Your task to perform on an android device: open device folders in google photos Image 0: 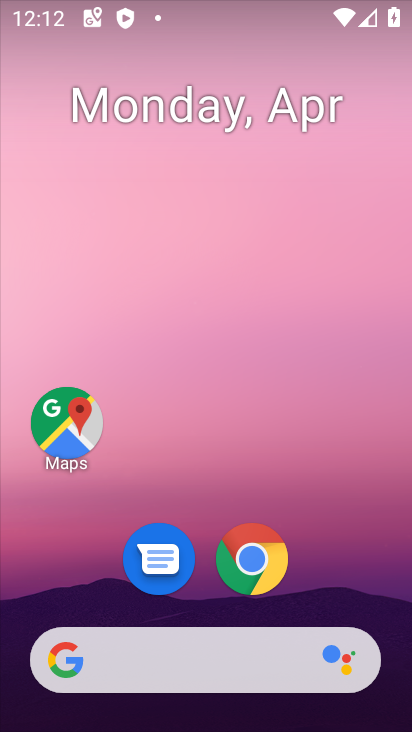
Step 0: drag from (220, 492) to (260, 57)
Your task to perform on an android device: open device folders in google photos Image 1: 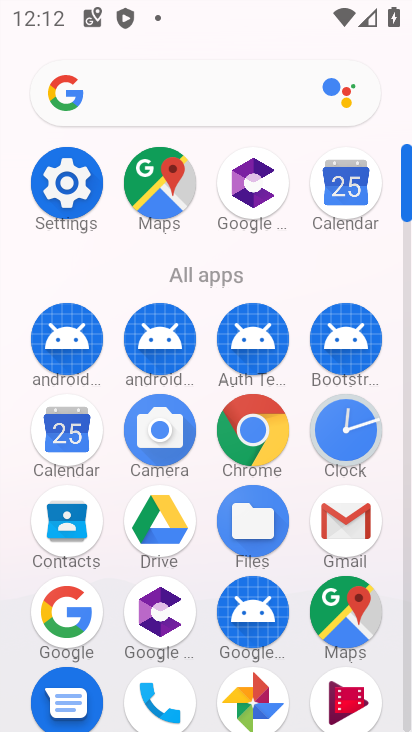
Step 1: click (251, 689)
Your task to perform on an android device: open device folders in google photos Image 2: 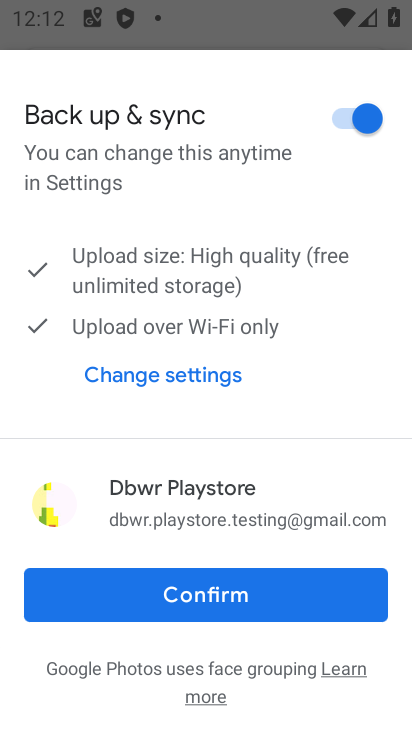
Step 2: click (243, 596)
Your task to perform on an android device: open device folders in google photos Image 3: 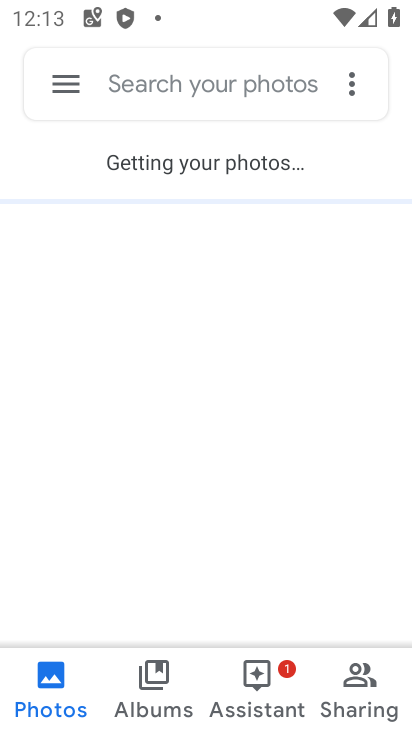
Step 3: click (350, 88)
Your task to perform on an android device: open device folders in google photos Image 4: 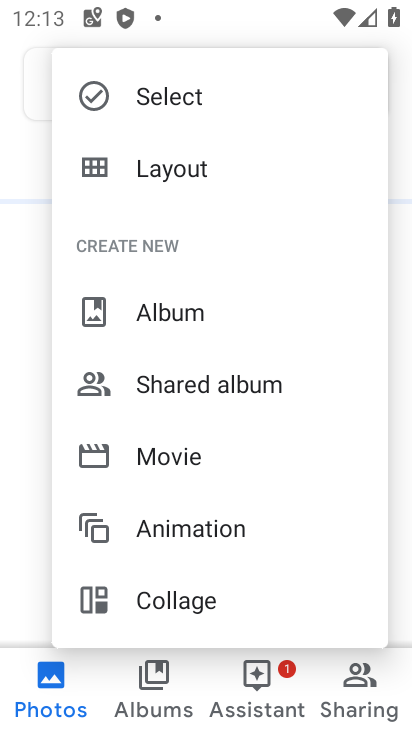
Step 4: click (32, 384)
Your task to perform on an android device: open device folders in google photos Image 5: 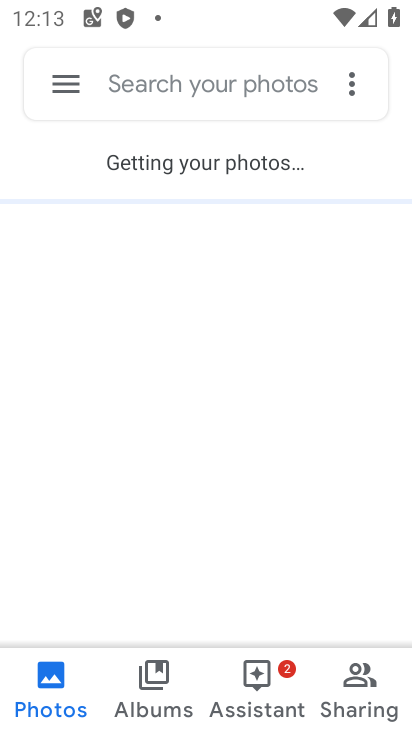
Step 5: click (61, 87)
Your task to perform on an android device: open device folders in google photos Image 6: 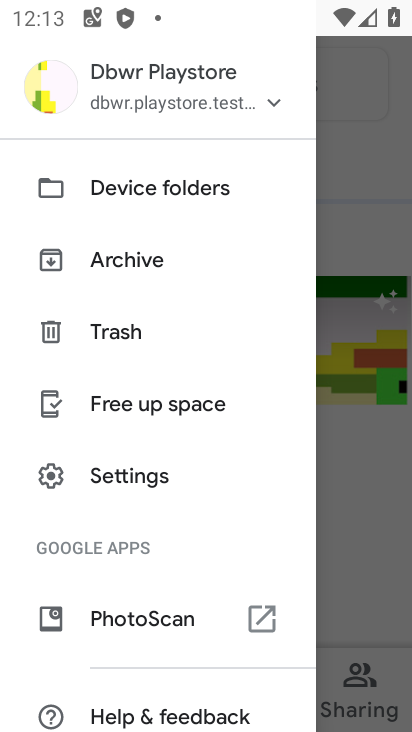
Step 6: click (197, 184)
Your task to perform on an android device: open device folders in google photos Image 7: 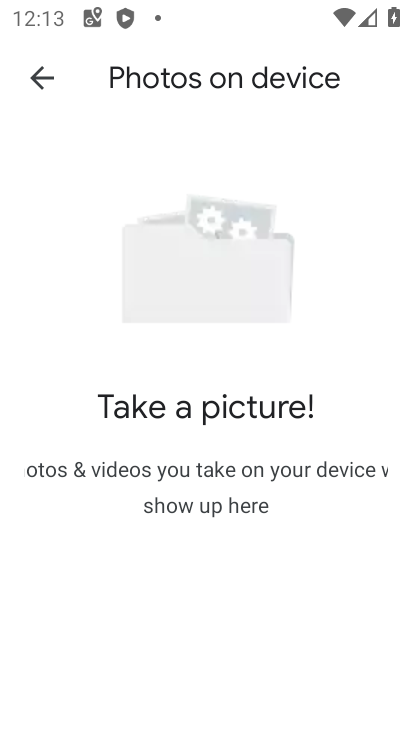
Step 7: task complete